Your task to perform on an android device: Show me productivity apps on the Play Store Image 0: 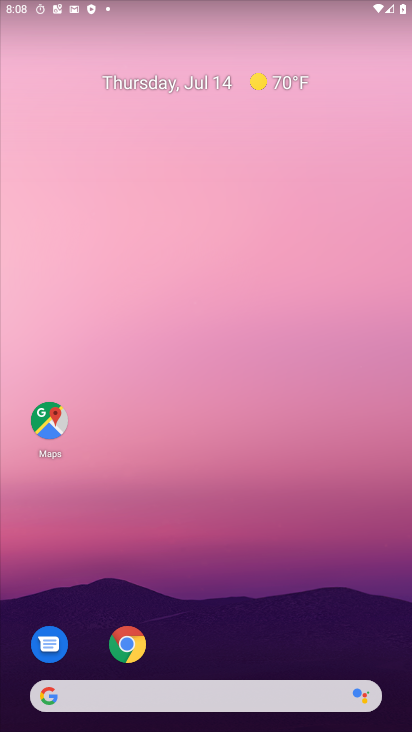
Step 0: drag from (248, 679) to (335, 102)
Your task to perform on an android device: Show me productivity apps on the Play Store Image 1: 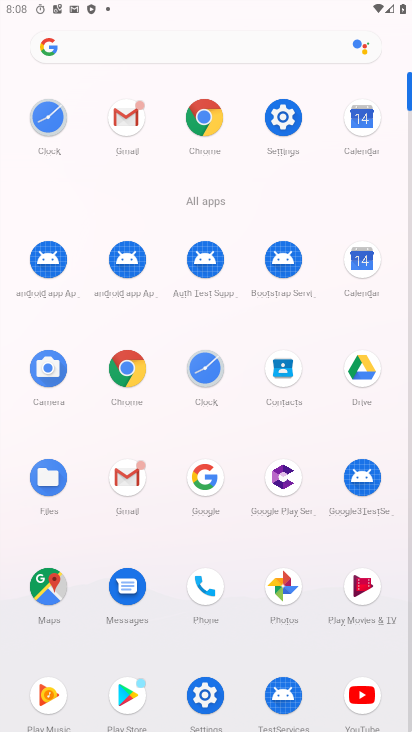
Step 1: click (128, 692)
Your task to perform on an android device: Show me productivity apps on the Play Store Image 2: 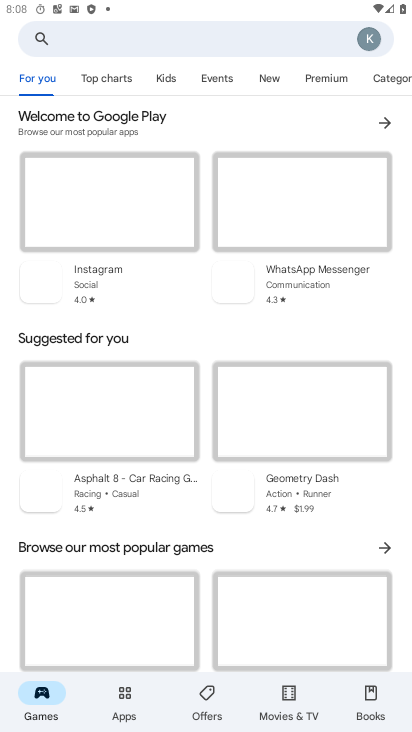
Step 2: click (120, 711)
Your task to perform on an android device: Show me productivity apps on the Play Store Image 3: 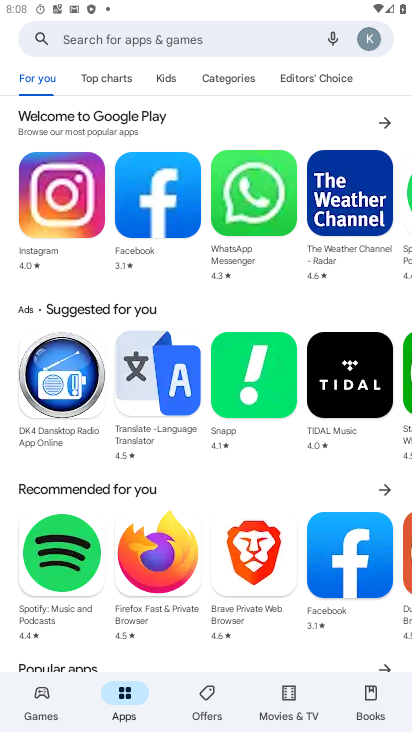
Step 3: click (216, 76)
Your task to perform on an android device: Show me productivity apps on the Play Store Image 4: 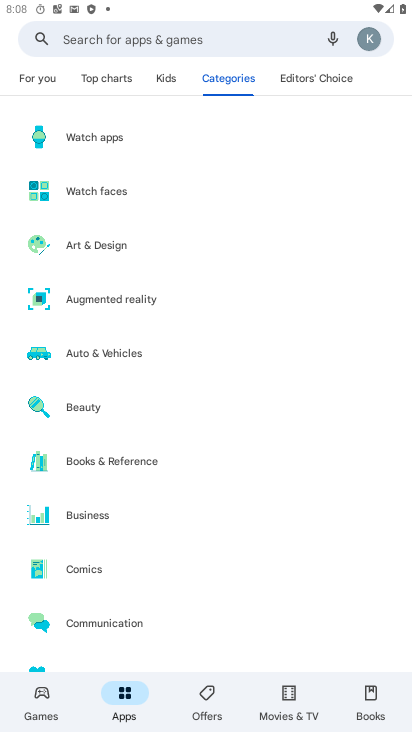
Step 4: drag from (267, 492) to (404, 119)
Your task to perform on an android device: Show me productivity apps on the Play Store Image 5: 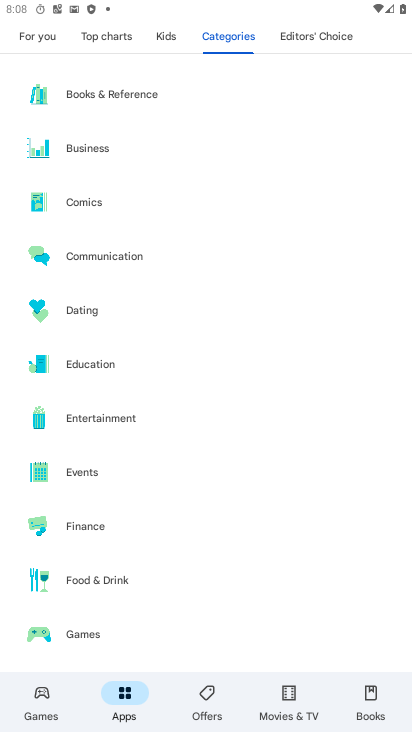
Step 5: drag from (334, 487) to (408, 148)
Your task to perform on an android device: Show me productivity apps on the Play Store Image 6: 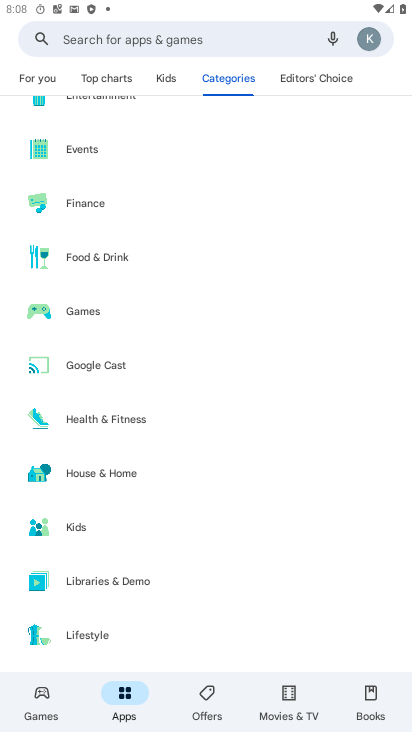
Step 6: drag from (300, 434) to (408, 203)
Your task to perform on an android device: Show me productivity apps on the Play Store Image 7: 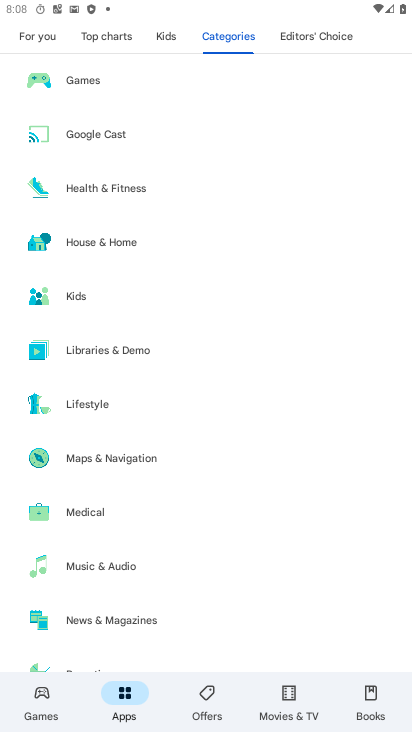
Step 7: drag from (299, 452) to (384, 193)
Your task to perform on an android device: Show me productivity apps on the Play Store Image 8: 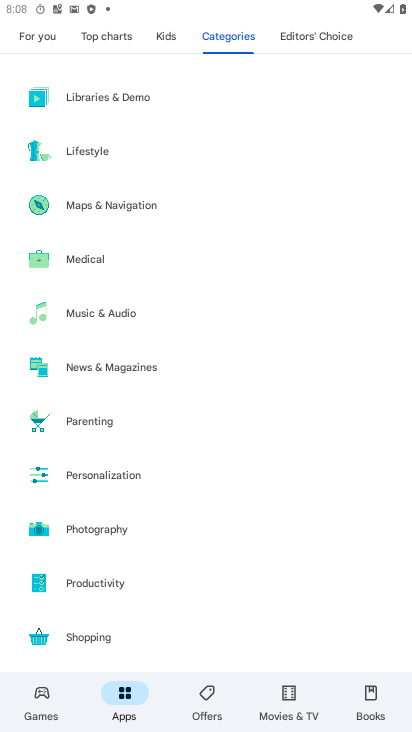
Step 8: click (114, 582)
Your task to perform on an android device: Show me productivity apps on the Play Store Image 9: 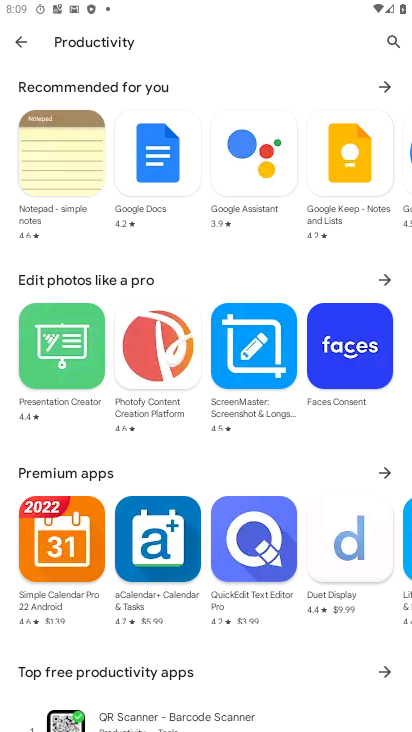
Step 9: task complete